Your task to perform on an android device: choose inbox layout in the gmail app Image 0: 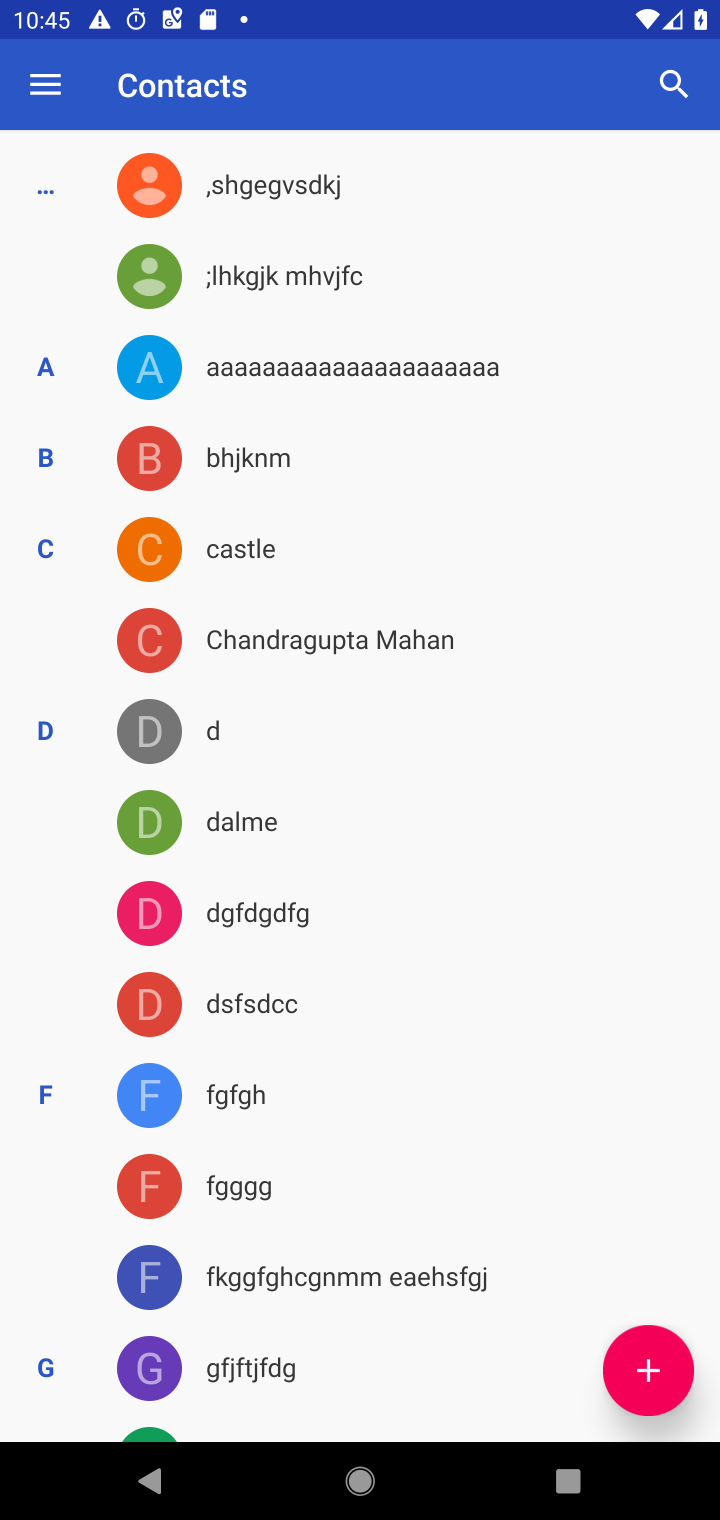
Step 0: press home button
Your task to perform on an android device: choose inbox layout in the gmail app Image 1: 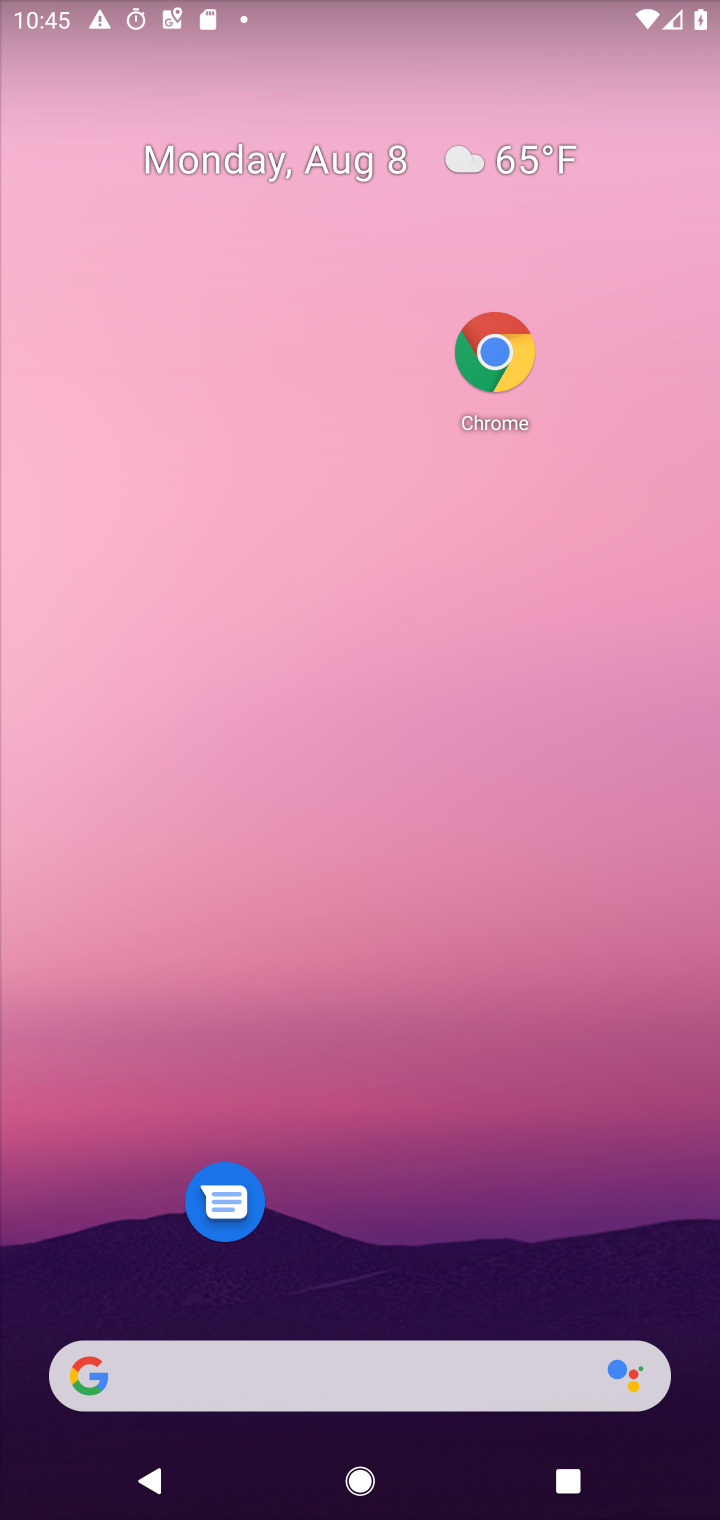
Step 1: drag from (434, 1334) to (524, 376)
Your task to perform on an android device: choose inbox layout in the gmail app Image 2: 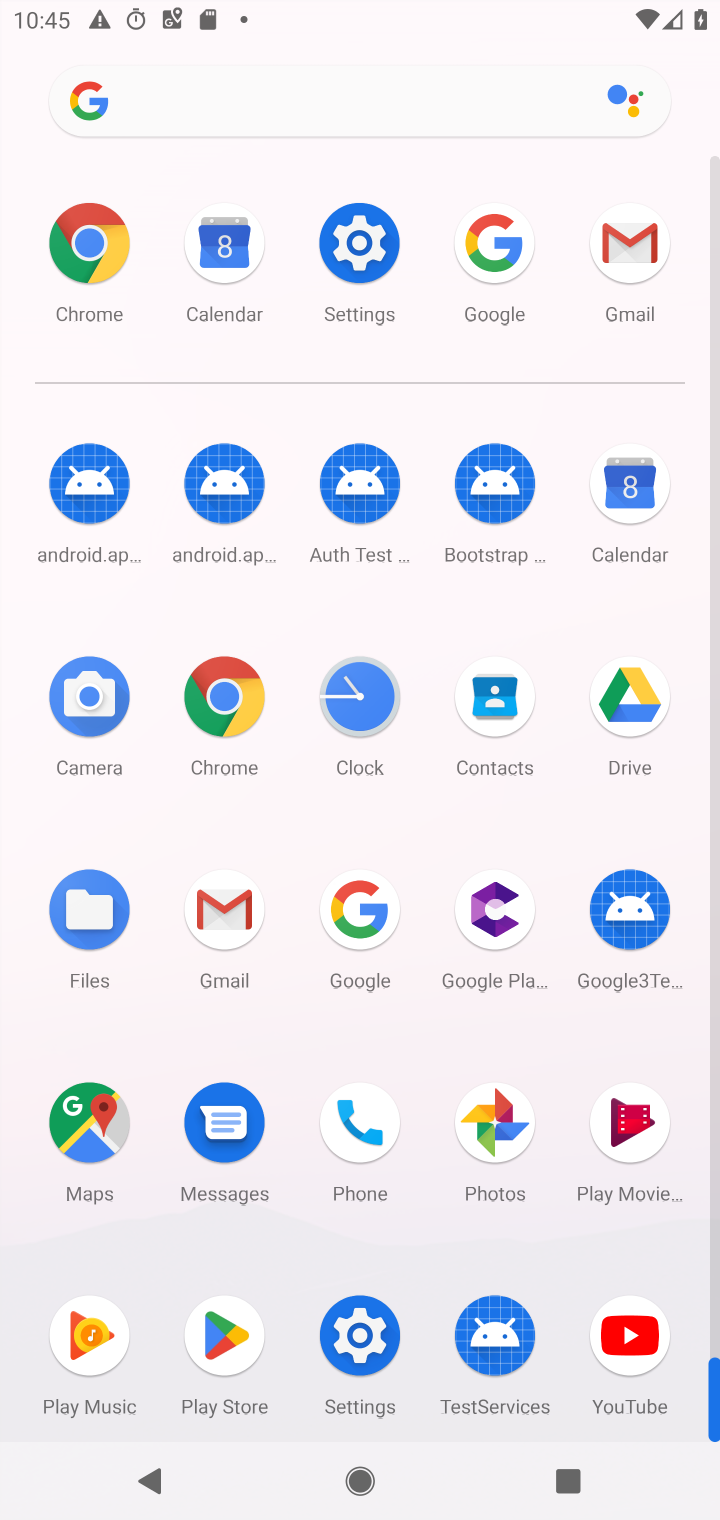
Step 2: click (226, 931)
Your task to perform on an android device: choose inbox layout in the gmail app Image 3: 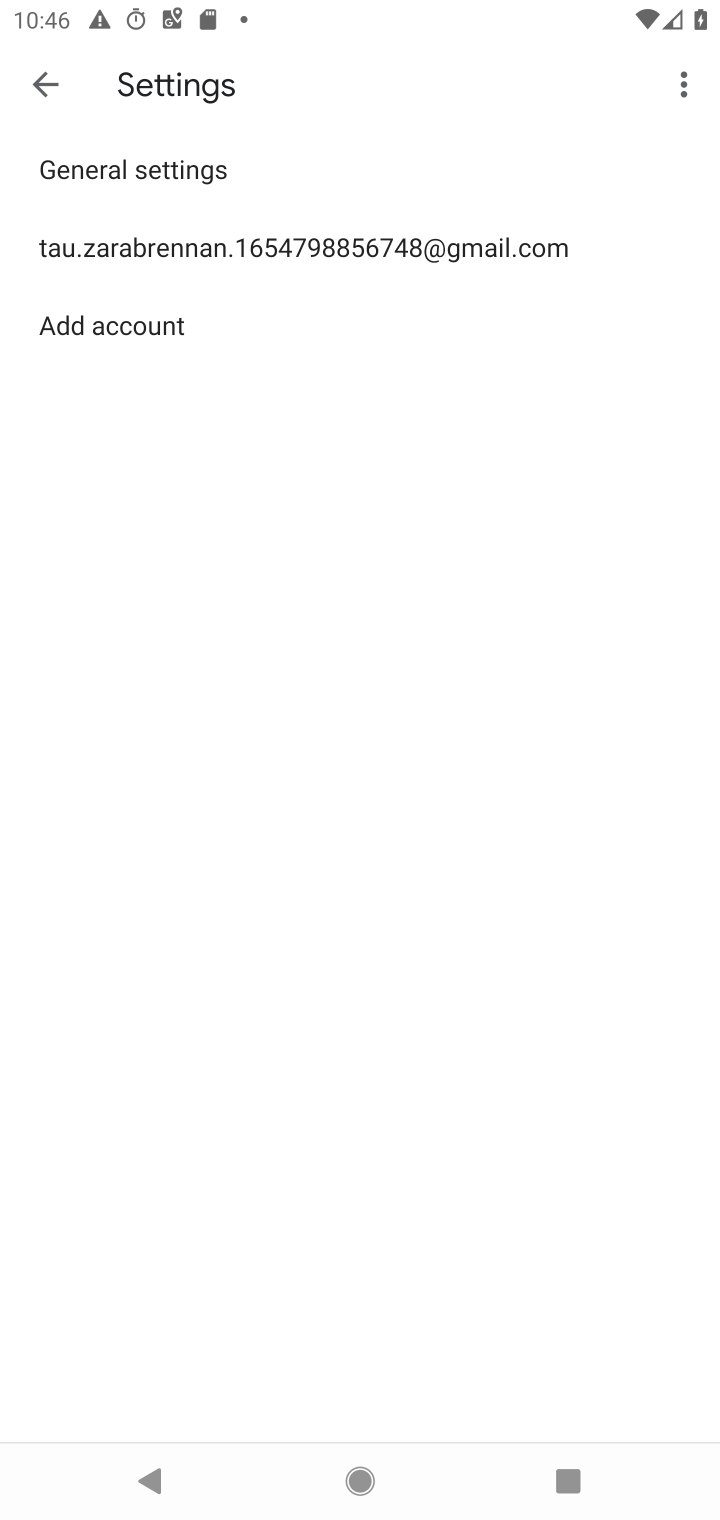
Step 3: click (159, 166)
Your task to perform on an android device: choose inbox layout in the gmail app Image 4: 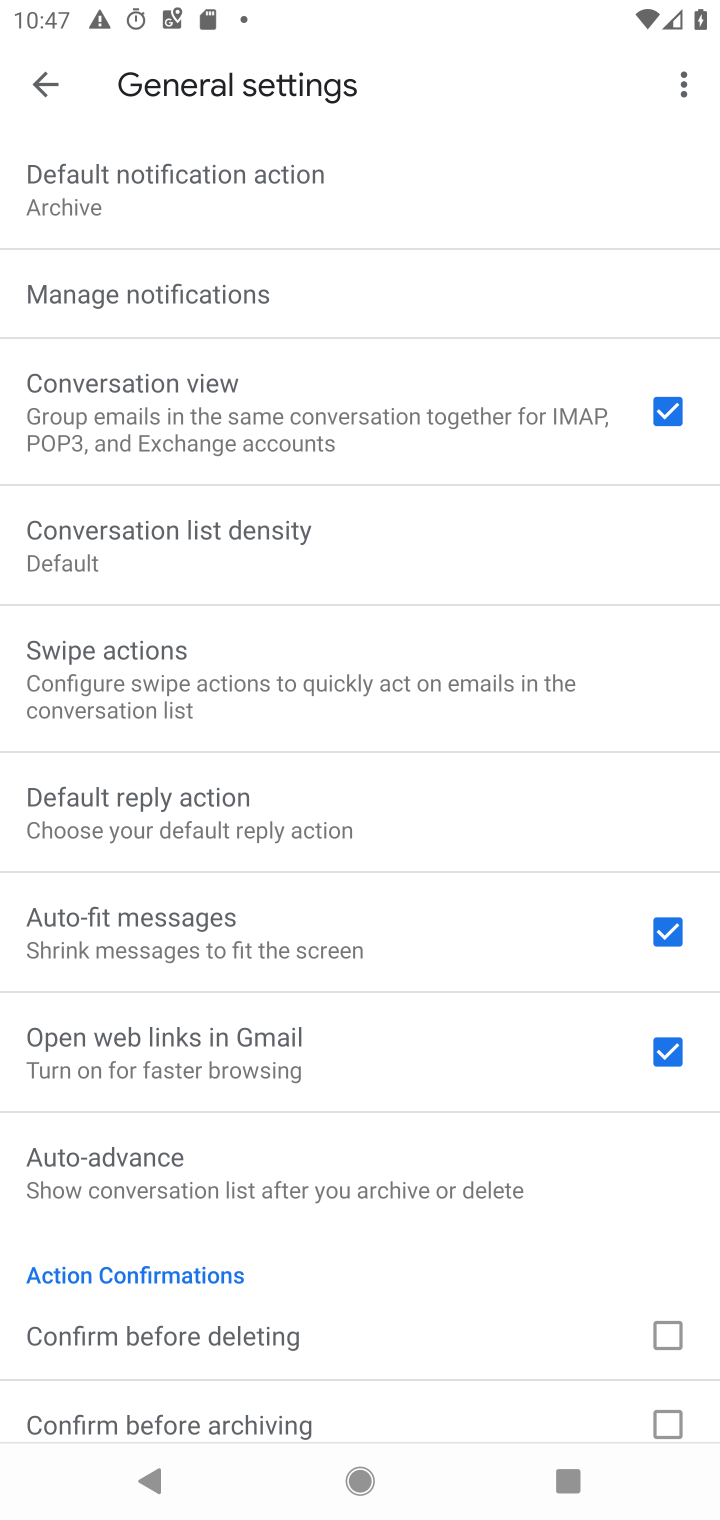
Step 4: task complete